Your task to perform on an android device: Show the shopping cart on target. Add razer naga to the cart on target Image 0: 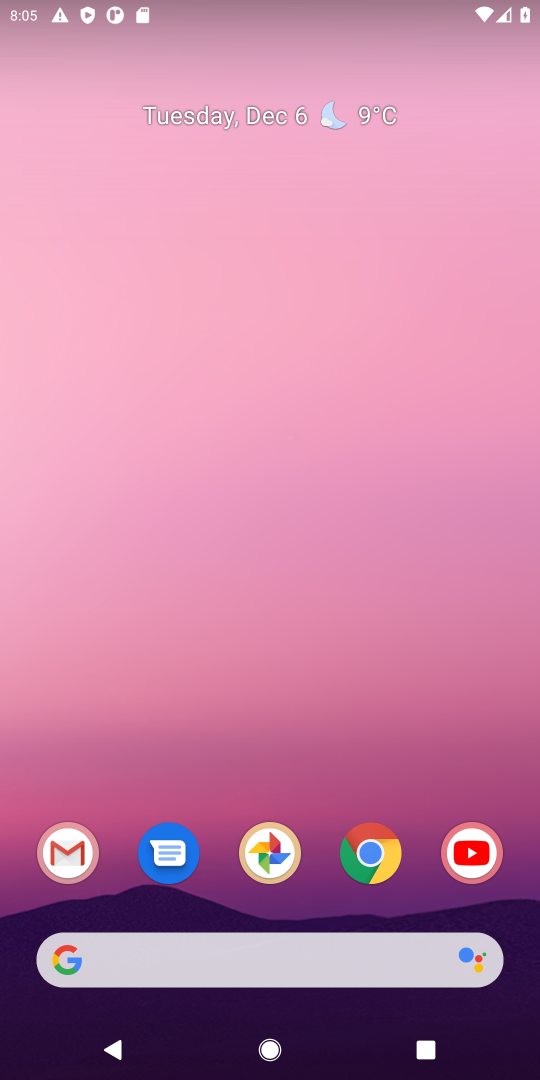
Step 0: click (371, 879)
Your task to perform on an android device: Show the shopping cart on target. Add razer naga to the cart on target Image 1: 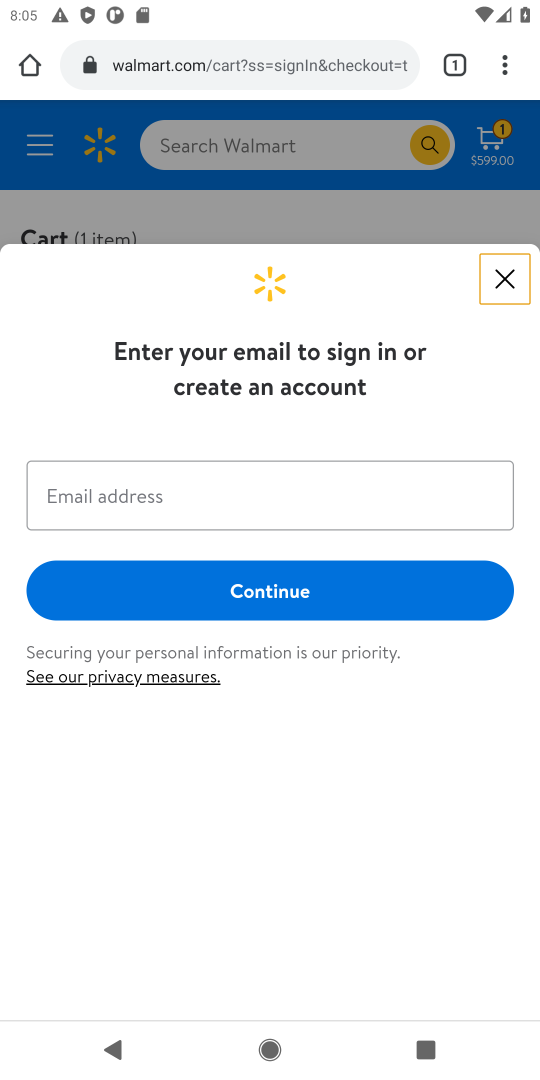
Step 1: click (507, 286)
Your task to perform on an android device: Show the shopping cart on target. Add razer naga to the cart on target Image 2: 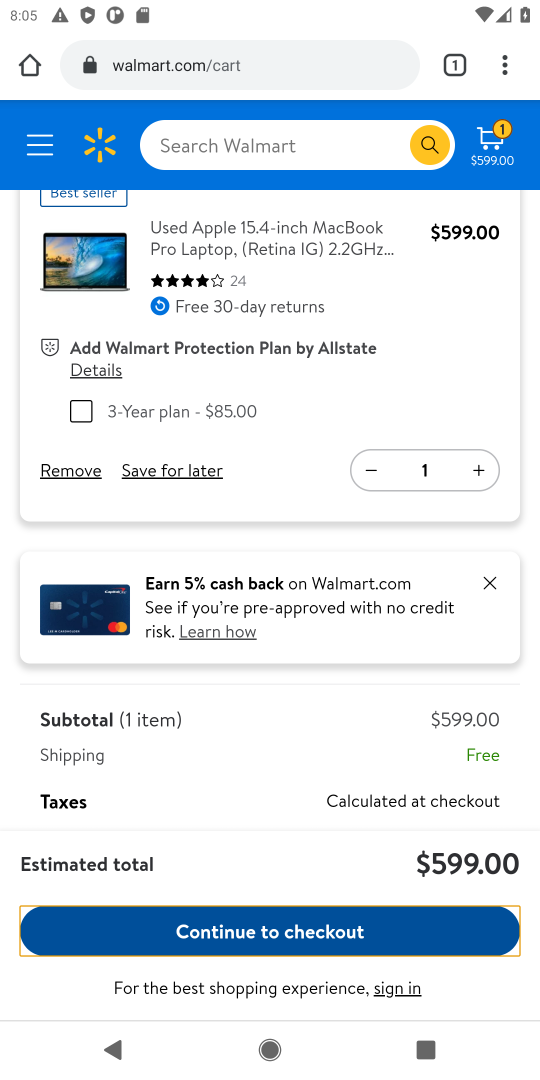
Step 2: click (237, 58)
Your task to perform on an android device: Show the shopping cart on target. Add razer naga to the cart on target Image 3: 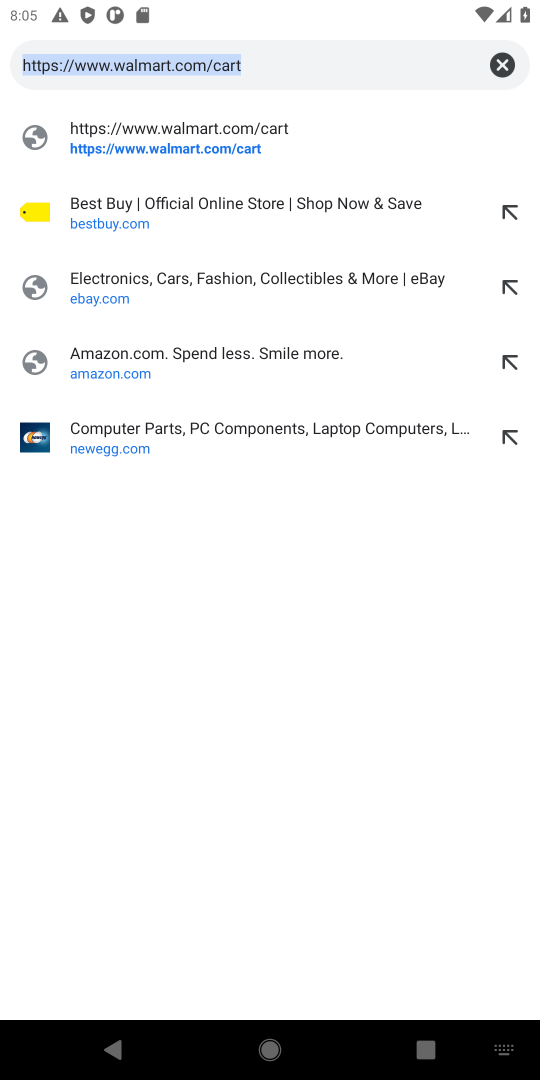
Step 3: click (224, 56)
Your task to perform on an android device: Show the shopping cart on target. Add razer naga to the cart on target Image 4: 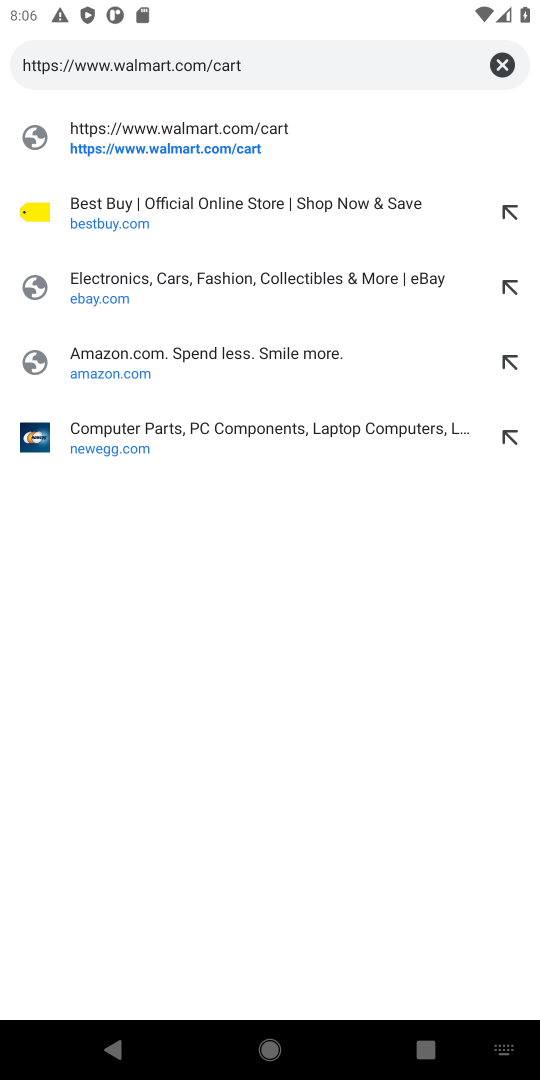
Step 4: click (498, 67)
Your task to perform on an android device: Show the shopping cart on target. Add razer naga to the cart on target Image 5: 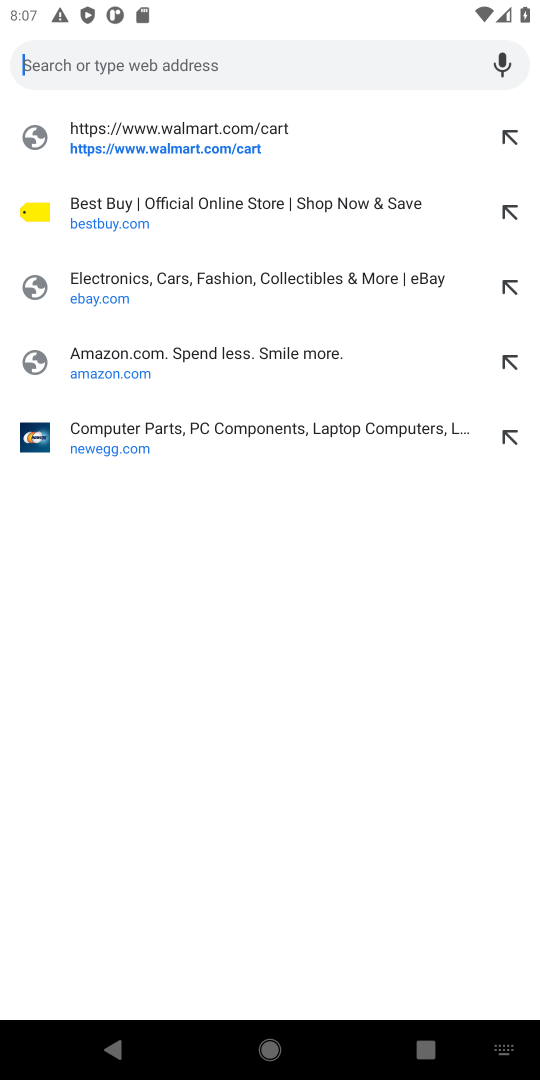
Step 5: type "target"
Your task to perform on an android device: Show the shopping cart on target. Add razer naga to the cart on target Image 6: 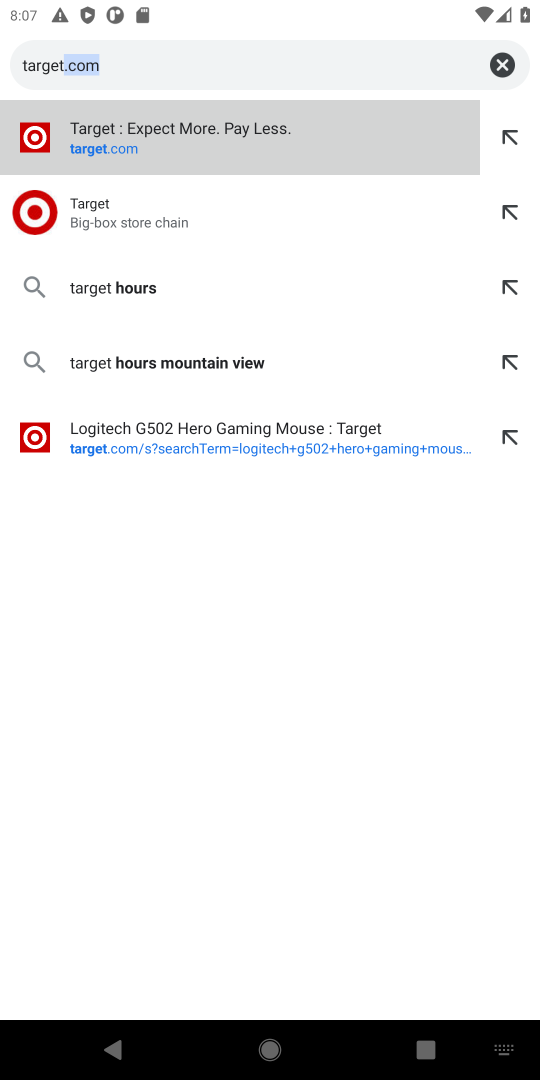
Step 6: click (178, 130)
Your task to perform on an android device: Show the shopping cart on target. Add razer naga to the cart on target Image 7: 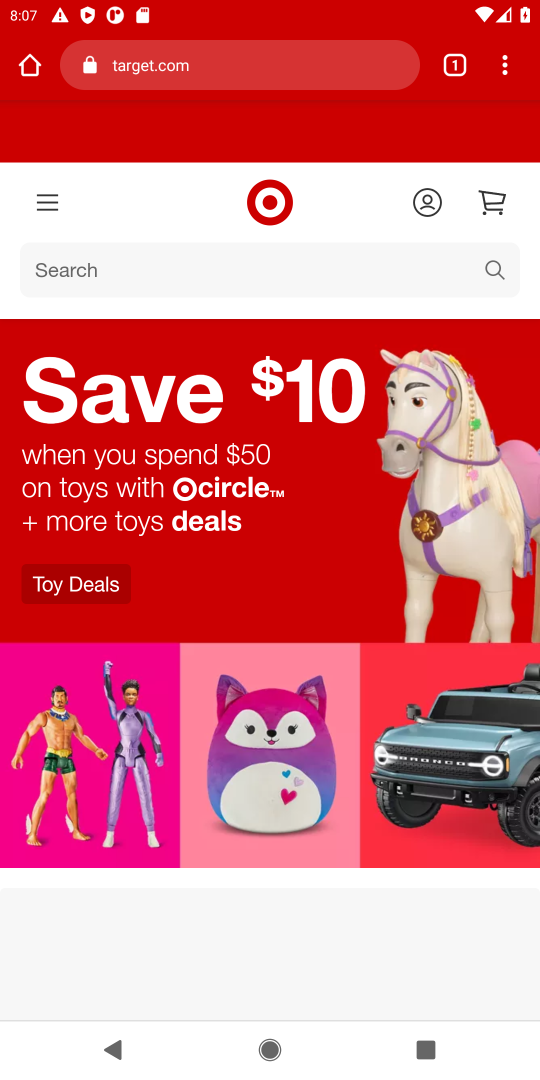
Step 7: click (494, 264)
Your task to perform on an android device: Show the shopping cart on target. Add razer naga to the cart on target Image 8: 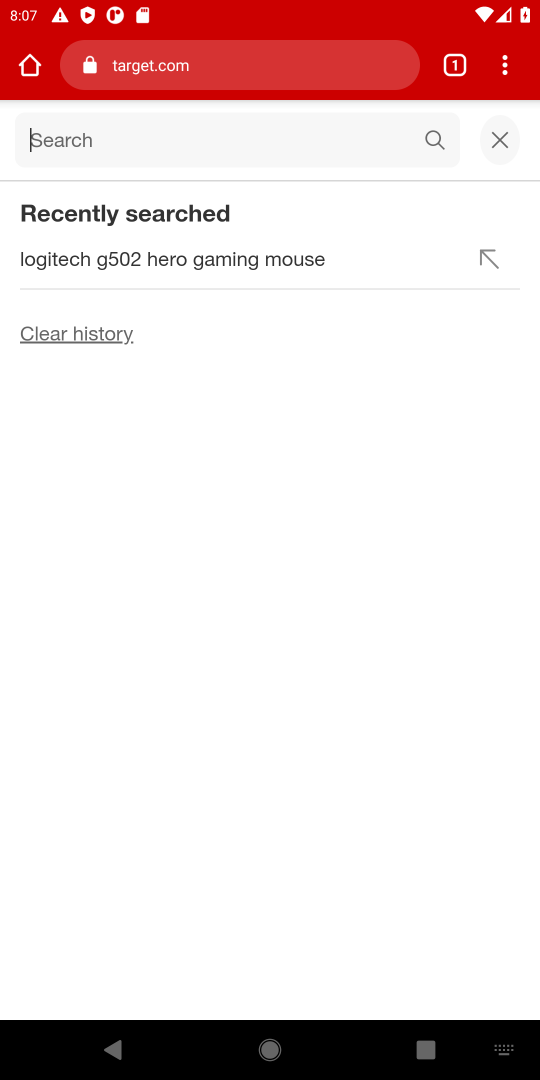
Step 8: type "razer naga"
Your task to perform on an android device: Show the shopping cart on target. Add razer naga to the cart on target Image 9: 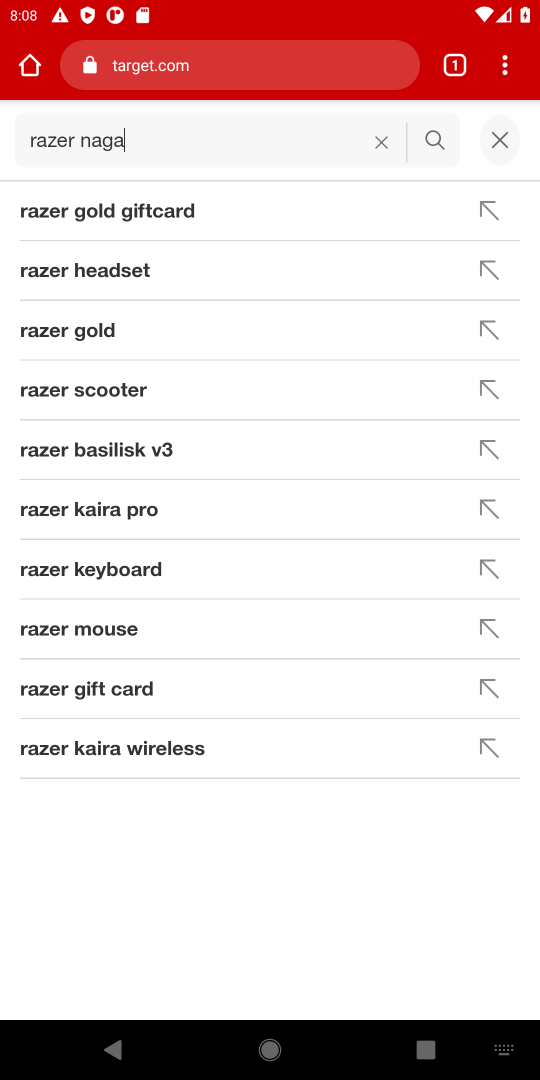
Step 9: click (439, 133)
Your task to perform on an android device: Show the shopping cart on target. Add razer naga to the cart on target Image 10: 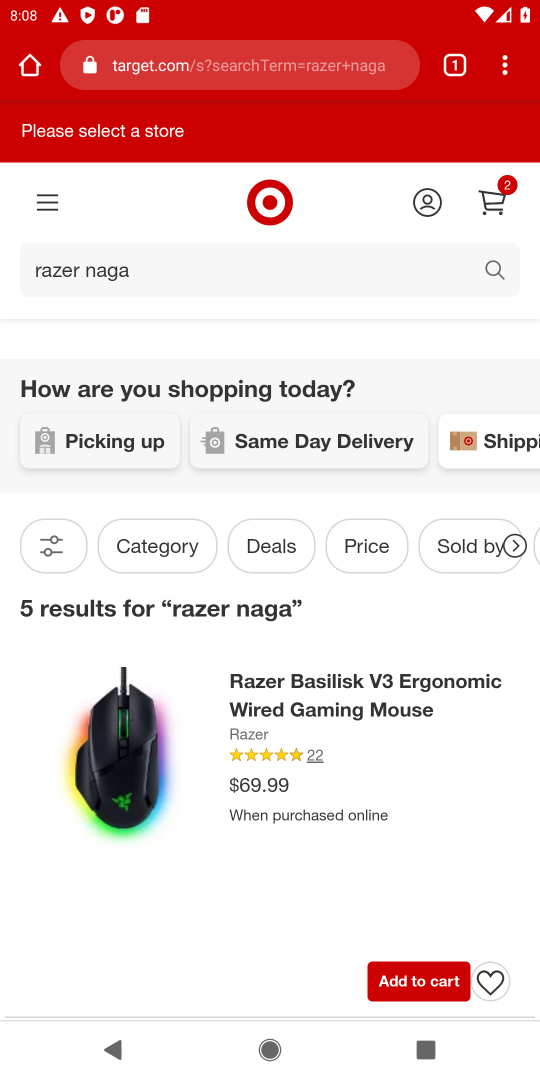
Step 10: click (417, 987)
Your task to perform on an android device: Show the shopping cart on target. Add razer naga to the cart on target Image 11: 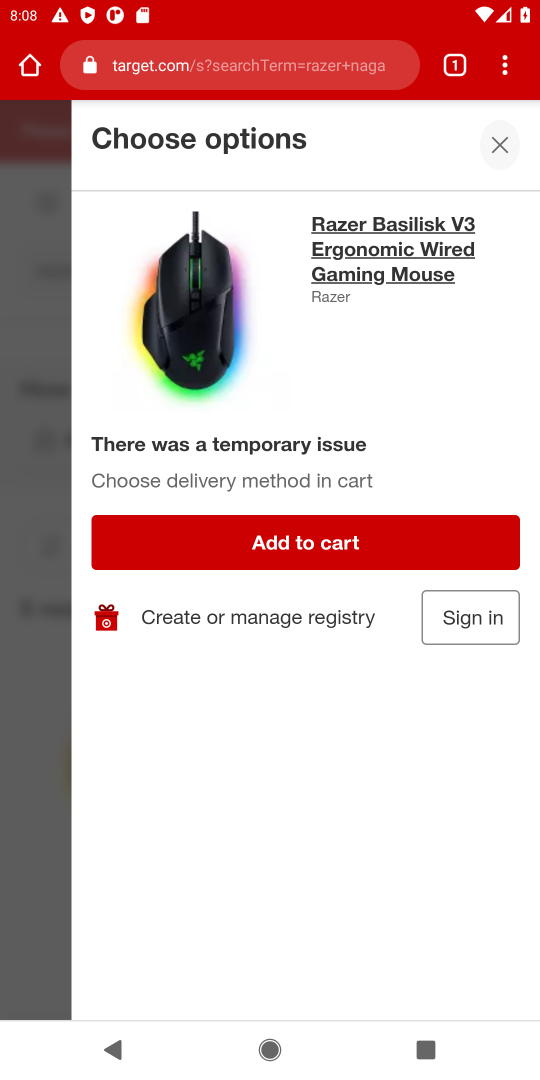
Step 11: click (328, 540)
Your task to perform on an android device: Show the shopping cart on target. Add razer naga to the cart on target Image 12: 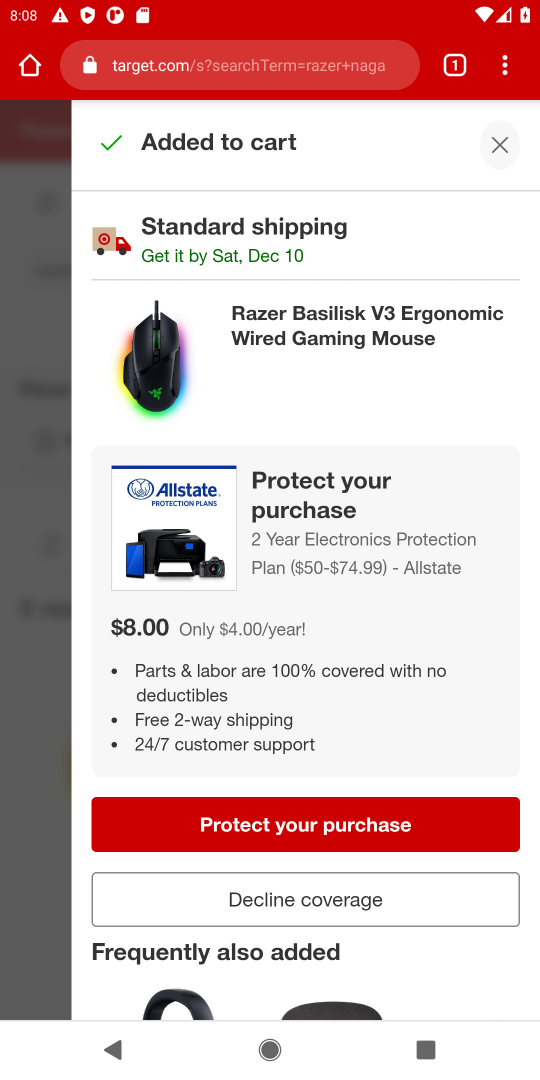
Step 12: click (495, 142)
Your task to perform on an android device: Show the shopping cart on target. Add razer naga to the cart on target Image 13: 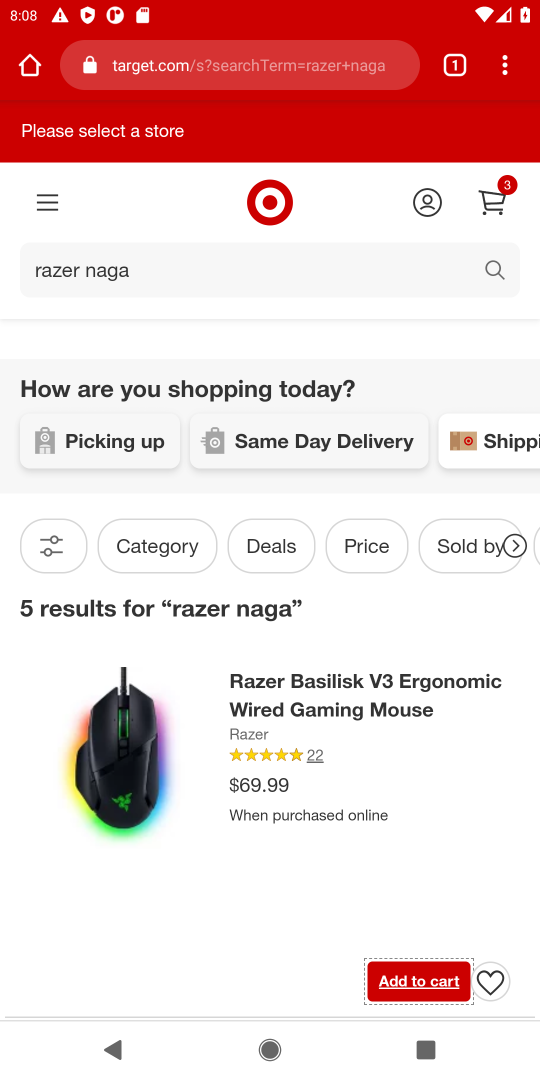
Step 13: task complete